Your task to perform on an android device: turn off data saver in the chrome app Image 0: 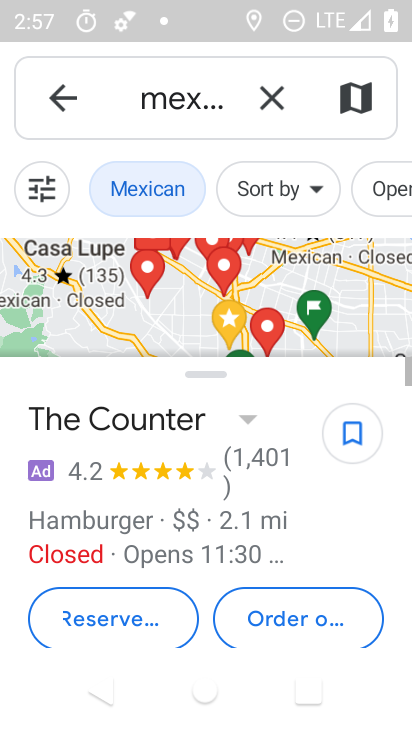
Step 0: press home button
Your task to perform on an android device: turn off data saver in the chrome app Image 1: 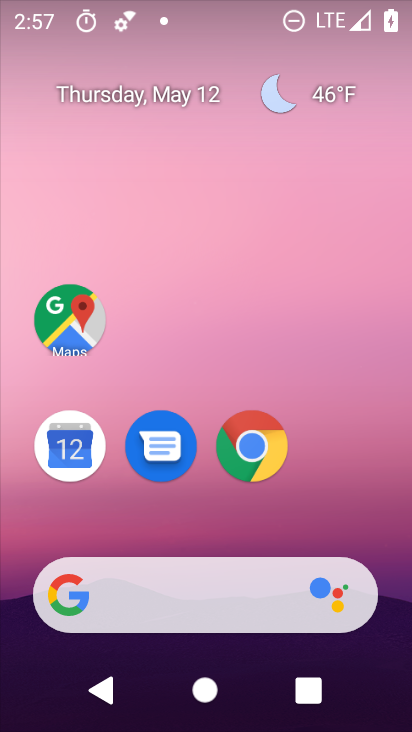
Step 1: click (243, 455)
Your task to perform on an android device: turn off data saver in the chrome app Image 2: 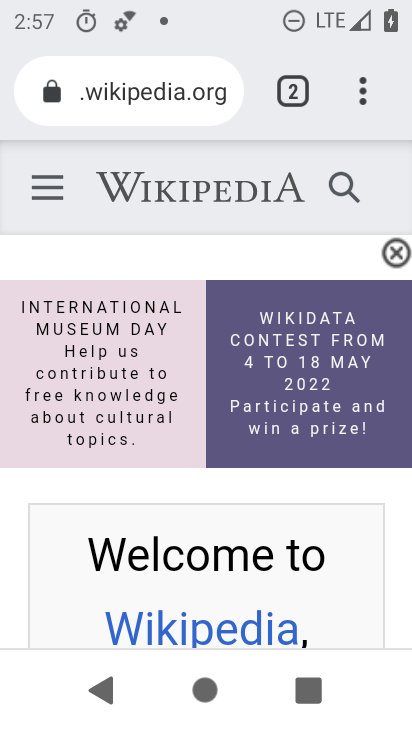
Step 2: click (371, 98)
Your task to perform on an android device: turn off data saver in the chrome app Image 3: 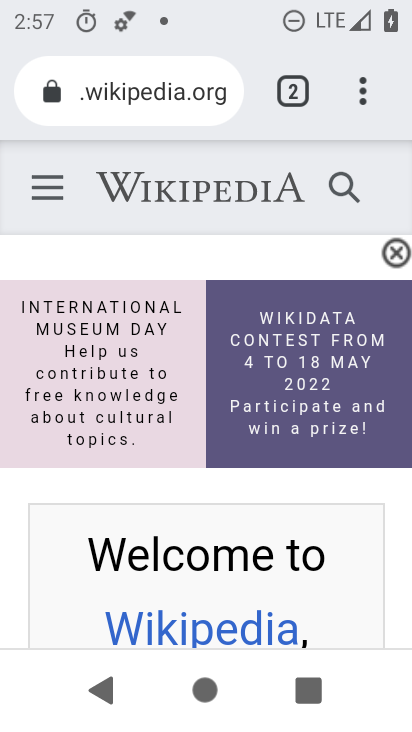
Step 3: drag from (371, 98) to (167, 467)
Your task to perform on an android device: turn off data saver in the chrome app Image 4: 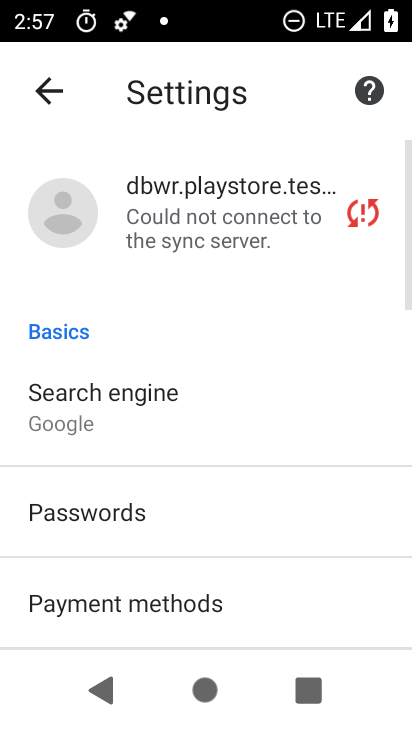
Step 4: drag from (195, 564) to (239, 214)
Your task to perform on an android device: turn off data saver in the chrome app Image 5: 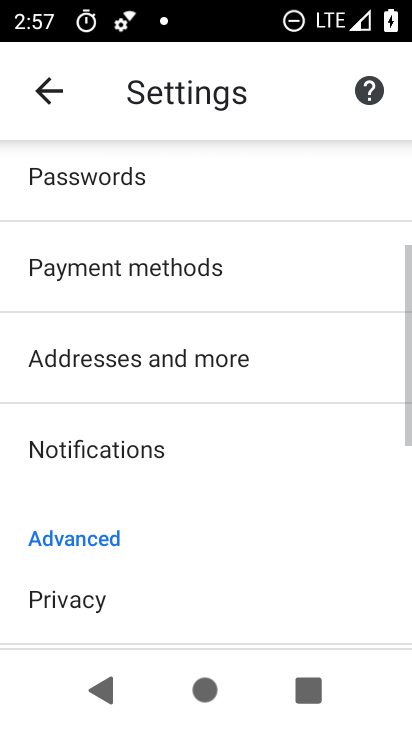
Step 5: drag from (237, 524) to (305, 242)
Your task to perform on an android device: turn off data saver in the chrome app Image 6: 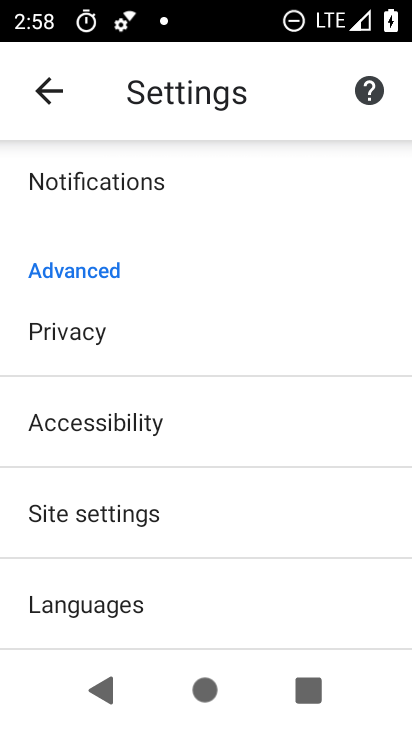
Step 6: drag from (225, 542) to (272, 361)
Your task to perform on an android device: turn off data saver in the chrome app Image 7: 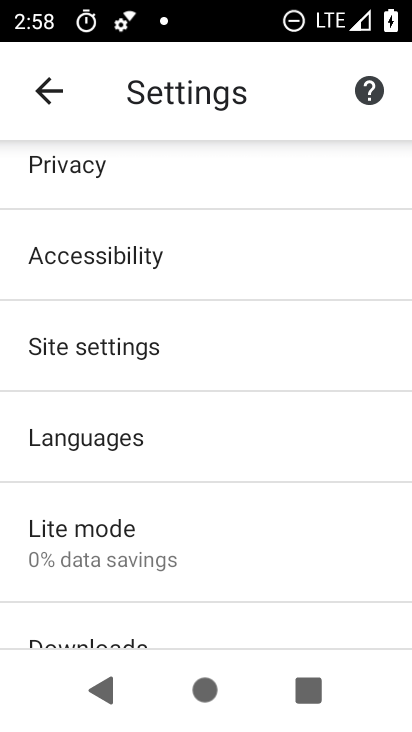
Step 7: click (221, 521)
Your task to perform on an android device: turn off data saver in the chrome app Image 8: 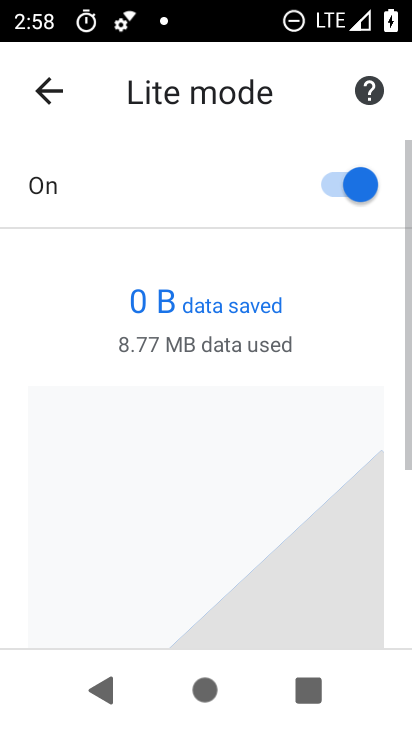
Step 8: click (337, 178)
Your task to perform on an android device: turn off data saver in the chrome app Image 9: 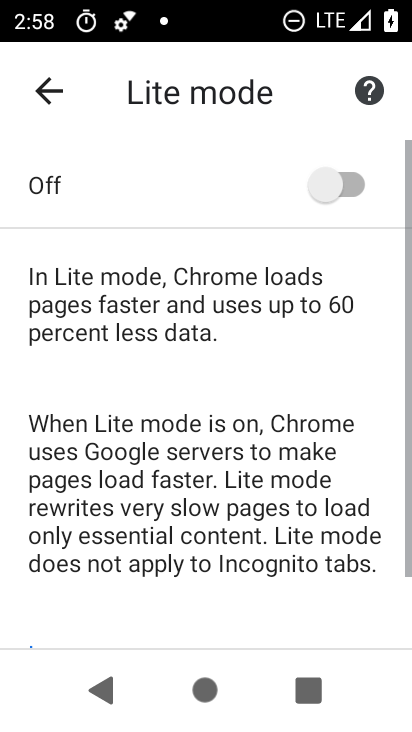
Step 9: task complete